Your task to perform on an android device: remove spam from my inbox in the gmail app Image 0: 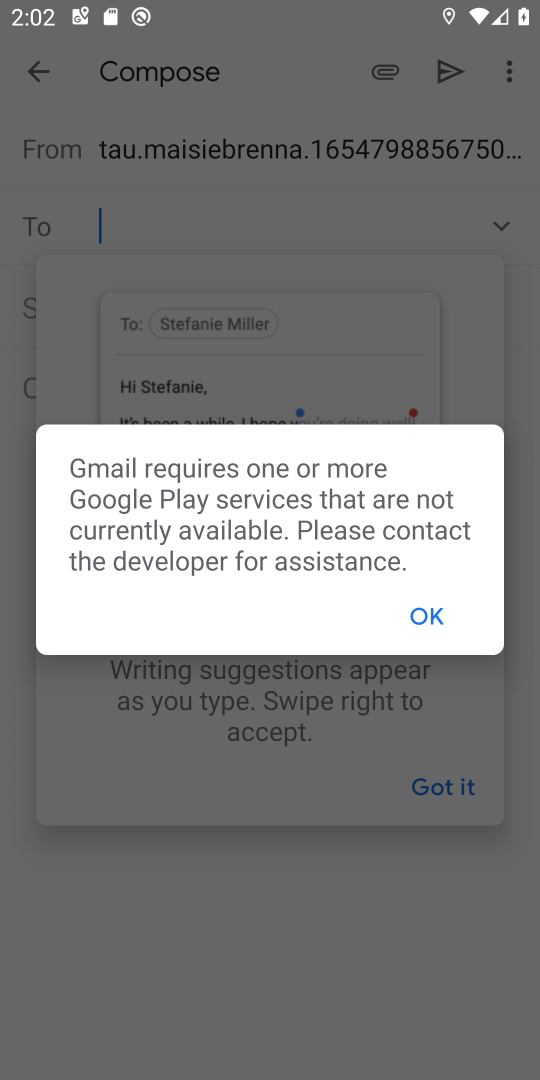
Step 0: press back button
Your task to perform on an android device: remove spam from my inbox in the gmail app Image 1: 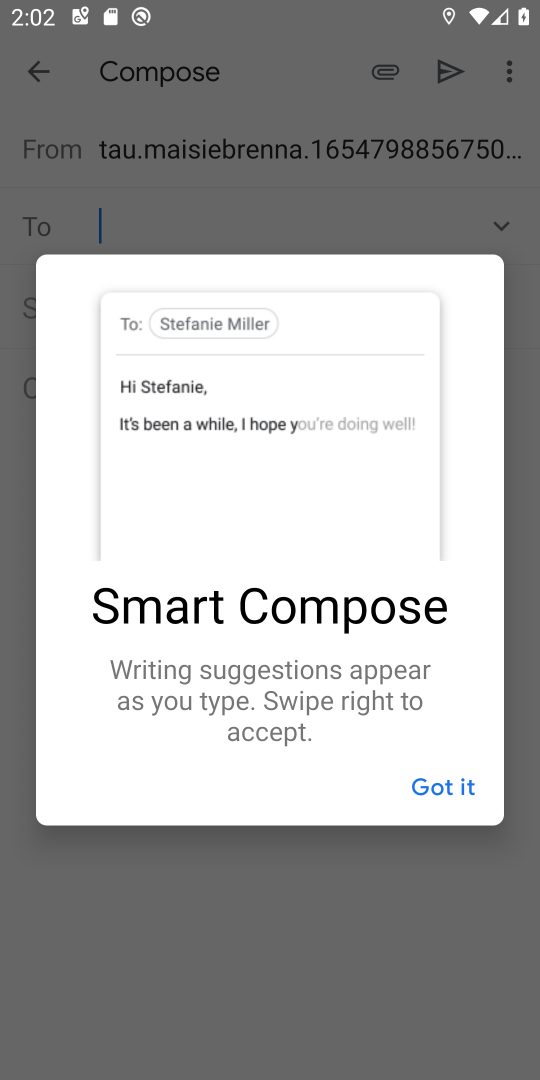
Step 1: press home button
Your task to perform on an android device: remove spam from my inbox in the gmail app Image 2: 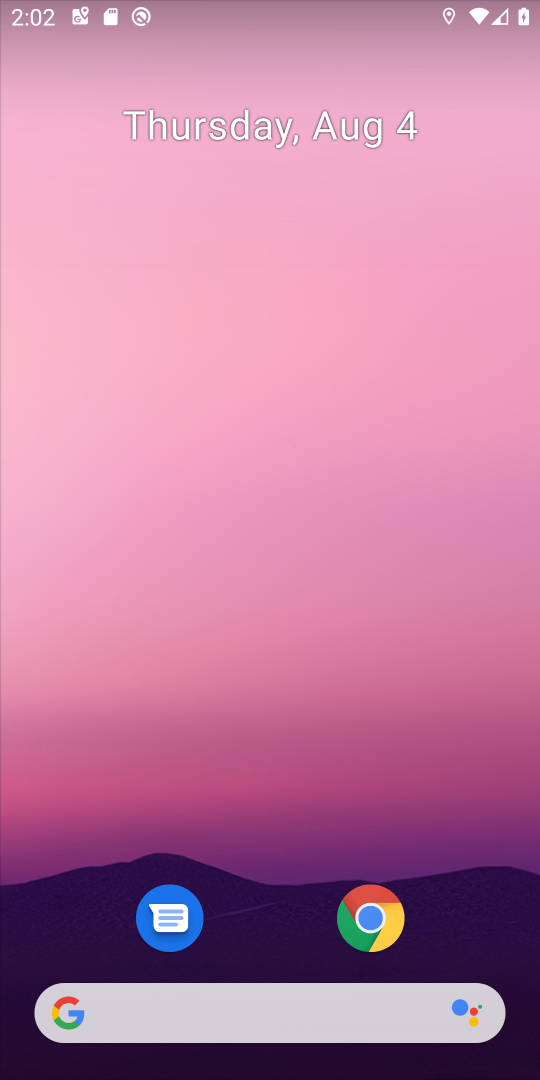
Step 2: drag from (288, 791) to (272, 235)
Your task to perform on an android device: remove spam from my inbox in the gmail app Image 3: 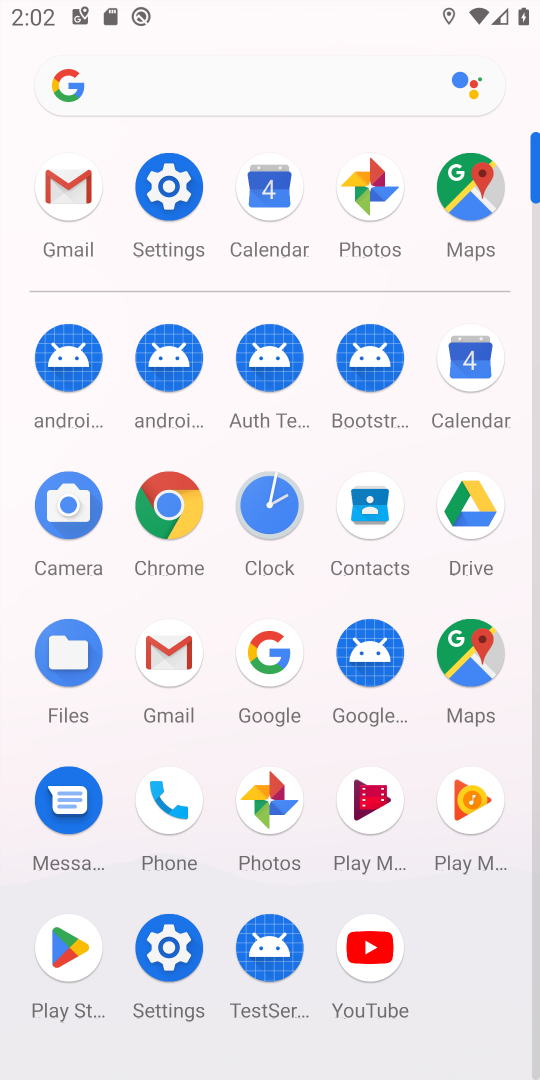
Step 3: click (171, 636)
Your task to perform on an android device: remove spam from my inbox in the gmail app Image 4: 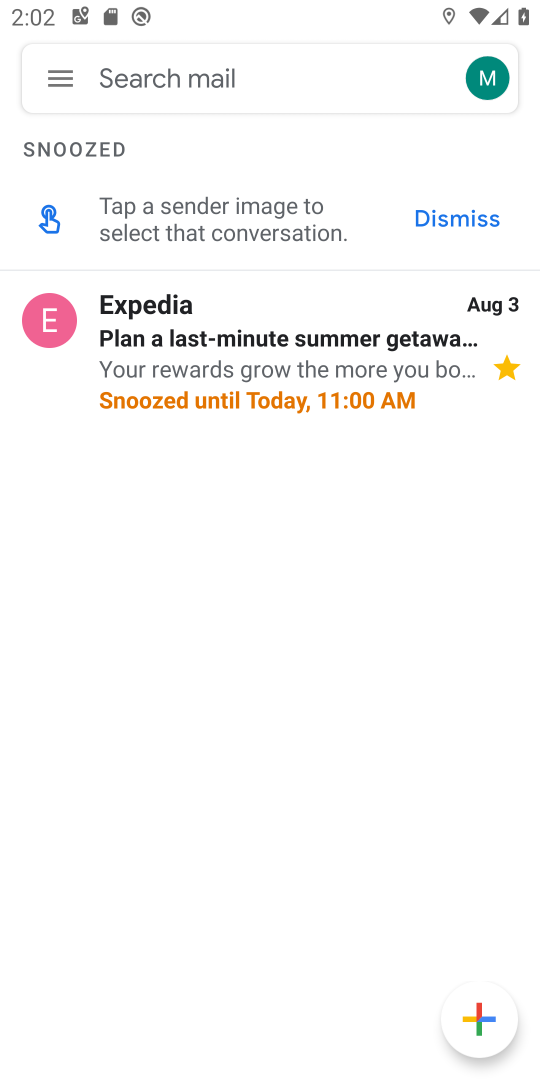
Step 4: click (58, 84)
Your task to perform on an android device: remove spam from my inbox in the gmail app Image 5: 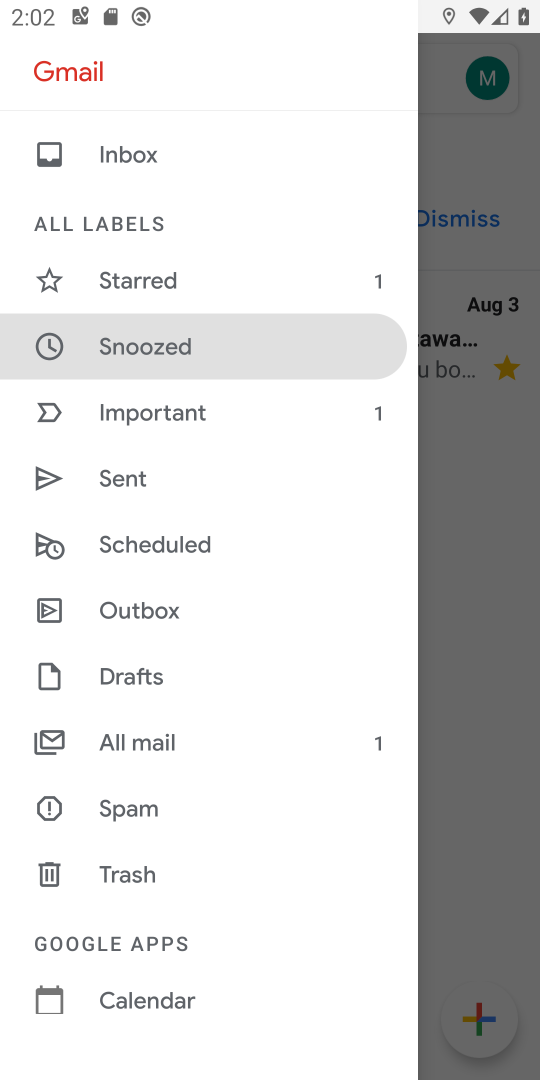
Step 5: click (163, 792)
Your task to perform on an android device: remove spam from my inbox in the gmail app Image 6: 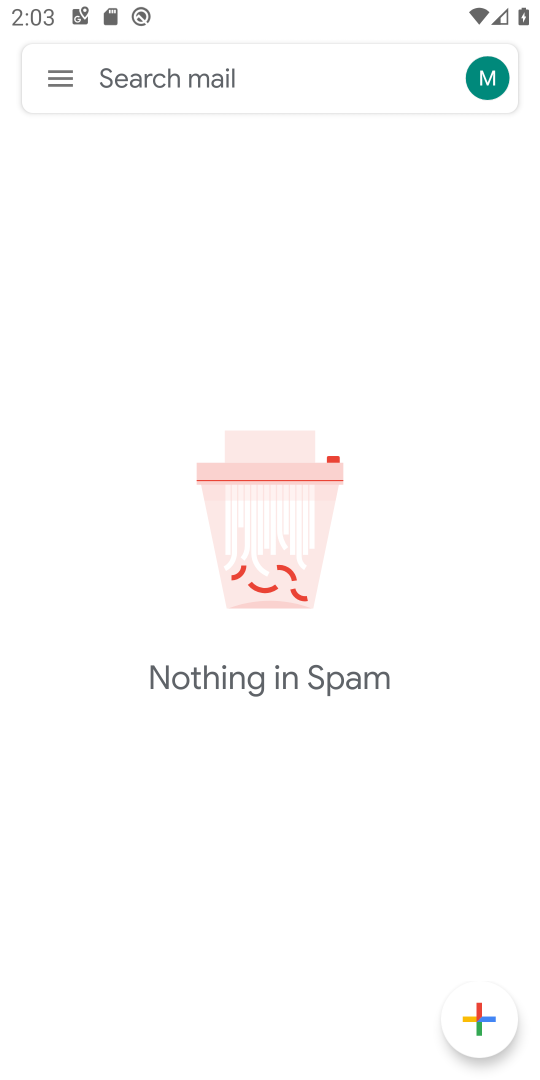
Step 6: task complete